Your task to perform on an android device: Turn off the flashlight Image 0: 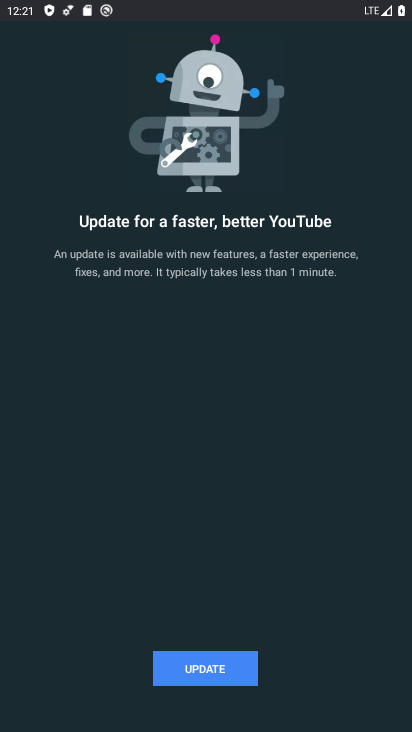
Step 0: press home button
Your task to perform on an android device: Turn off the flashlight Image 1: 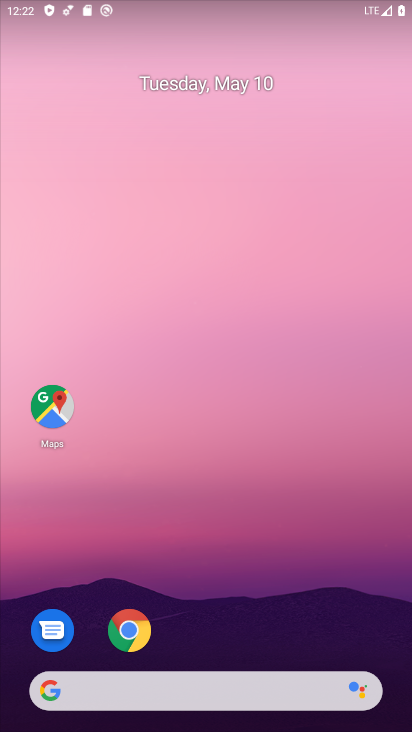
Step 1: drag from (218, 728) to (208, 116)
Your task to perform on an android device: Turn off the flashlight Image 2: 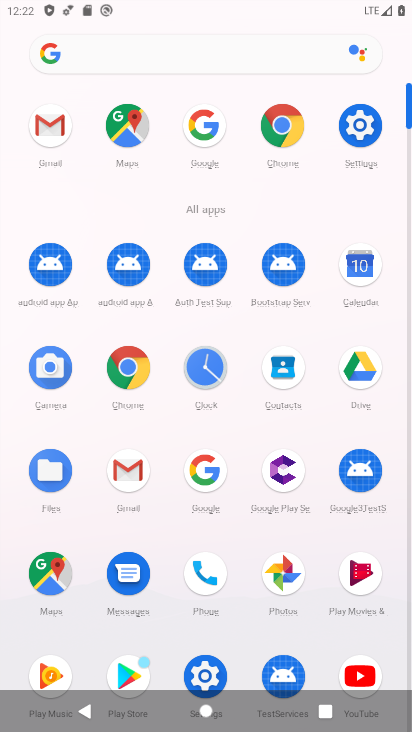
Step 2: click (362, 126)
Your task to perform on an android device: Turn off the flashlight Image 3: 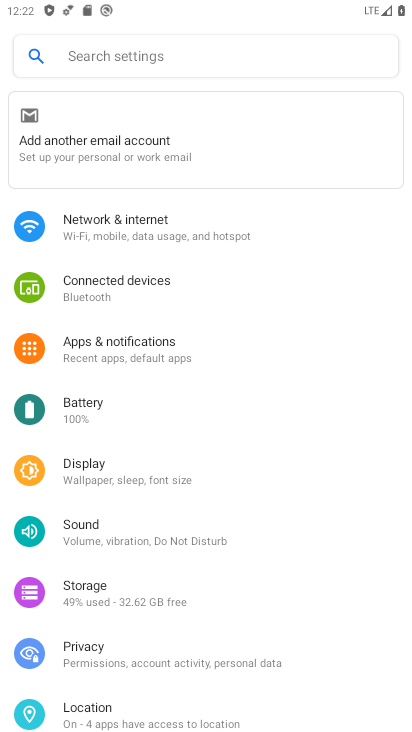
Step 3: task complete